Your task to perform on an android device: Google the capital of Venezuela Image 0: 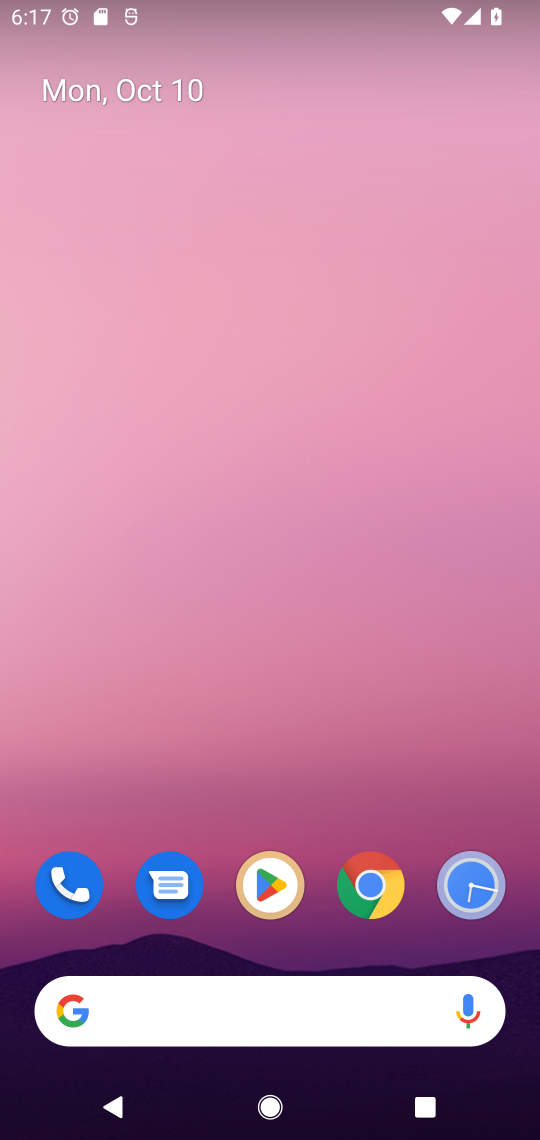
Step 0: click (370, 886)
Your task to perform on an android device: Google the capital of Venezuela Image 1: 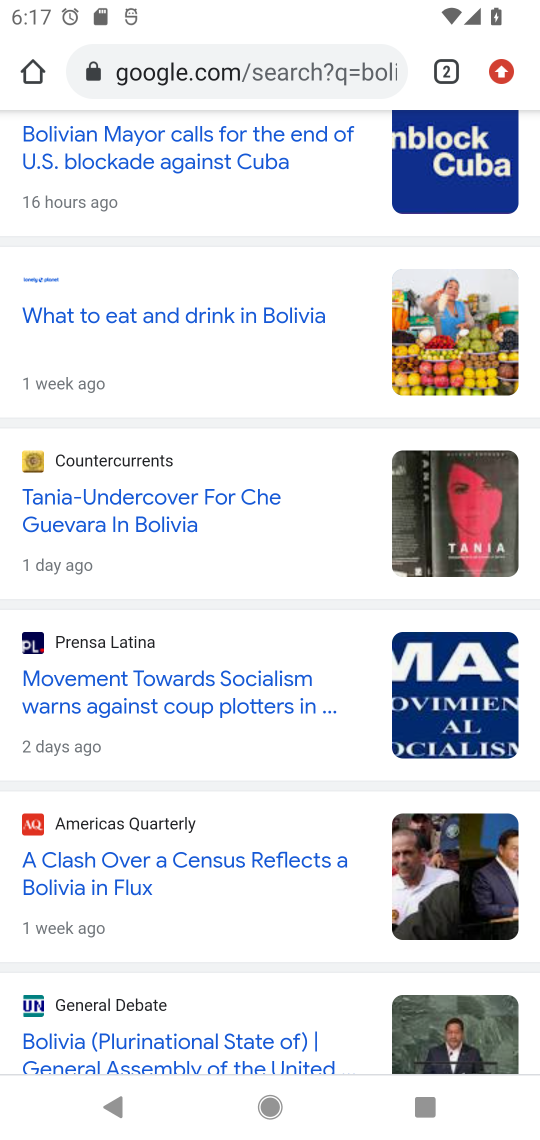
Step 1: click (263, 77)
Your task to perform on an android device: Google the capital of Venezuela Image 2: 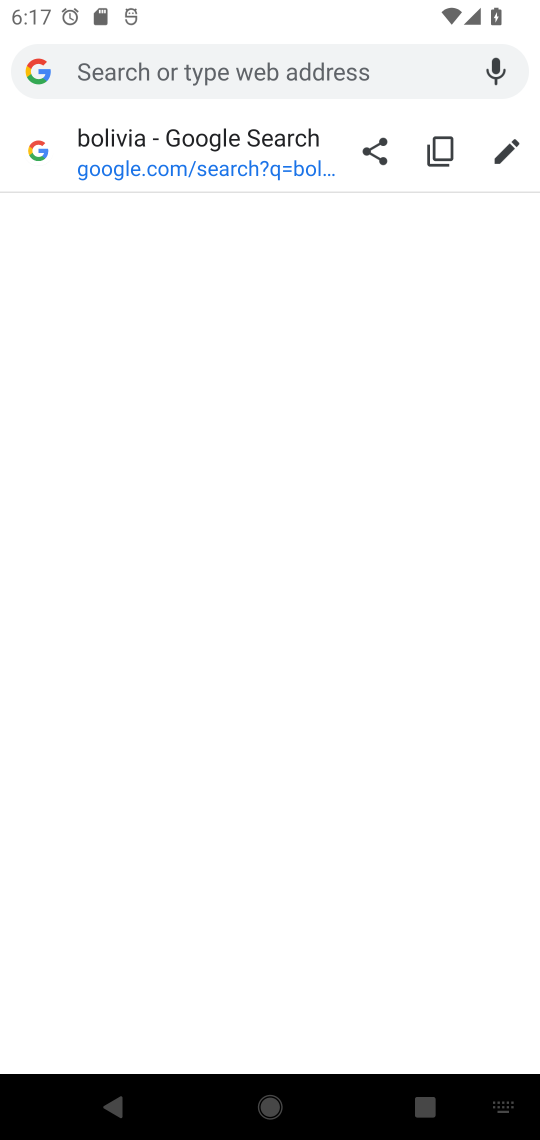
Step 2: type "capital of Venezuela"
Your task to perform on an android device: Google the capital of Venezuela Image 3: 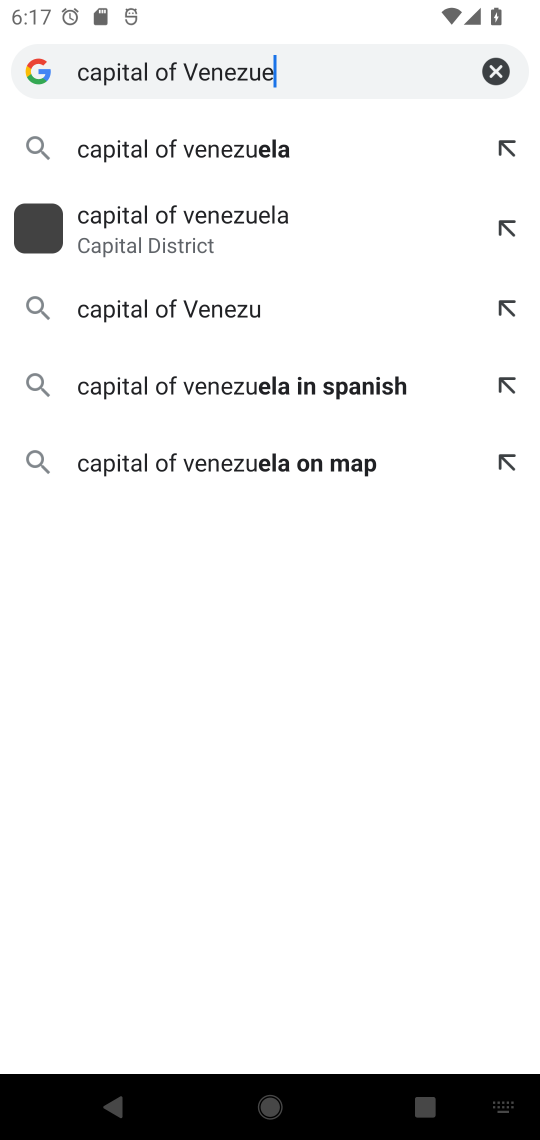
Step 3: type ""
Your task to perform on an android device: Google the capital of Venezuela Image 4: 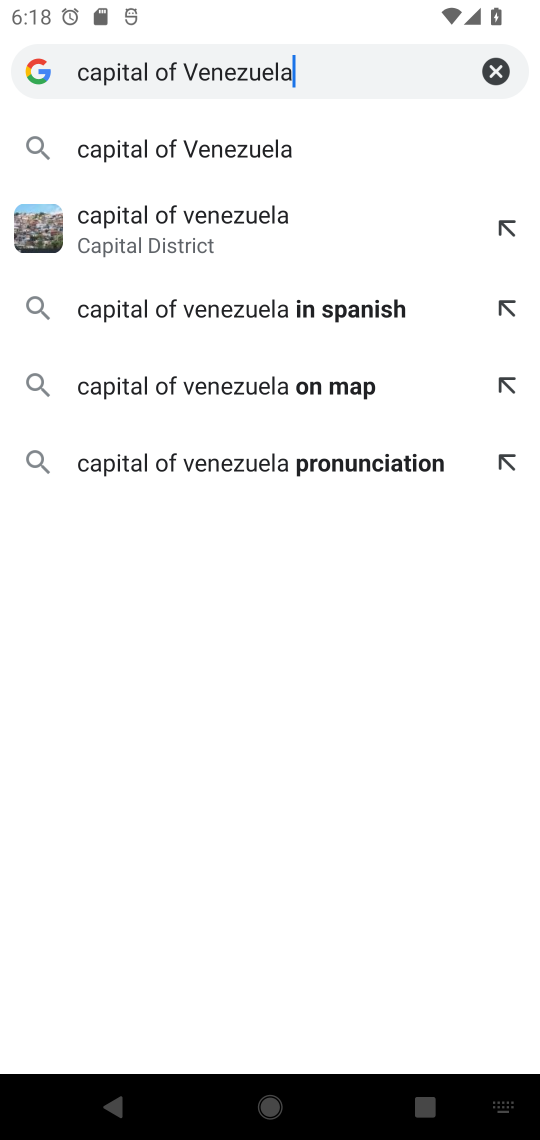
Step 4: click (235, 156)
Your task to perform on an android device: Google the capital of Venezuela Image 5: 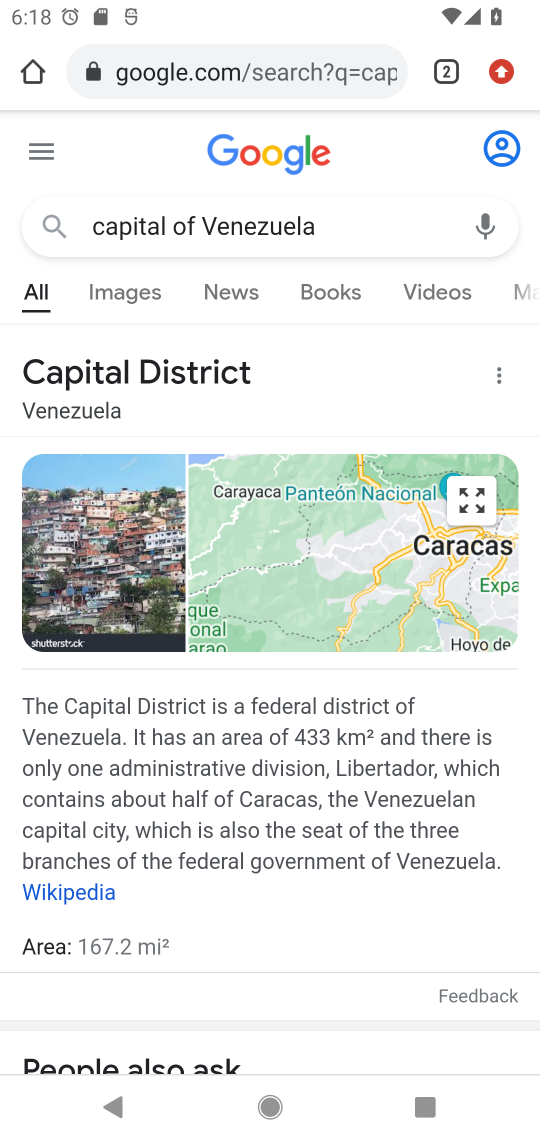
Step 5: task complete